Your task to perform on an android device: Search for Mexican restaurants on Maps Image 0: 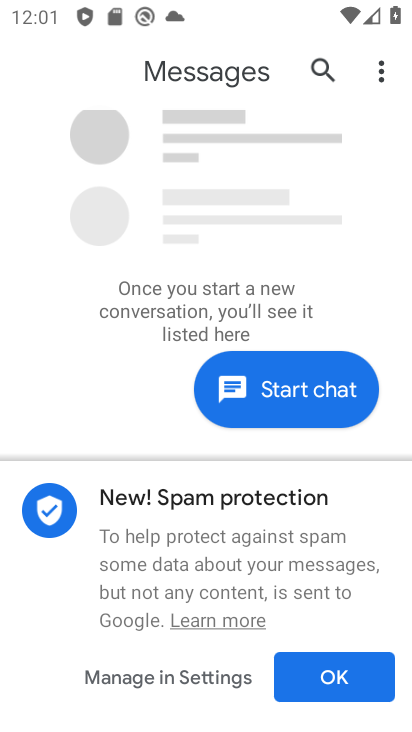
Step 0: press home button
Your task to perform on an android device: Search for Mexican restaurants on Maps Image 1: 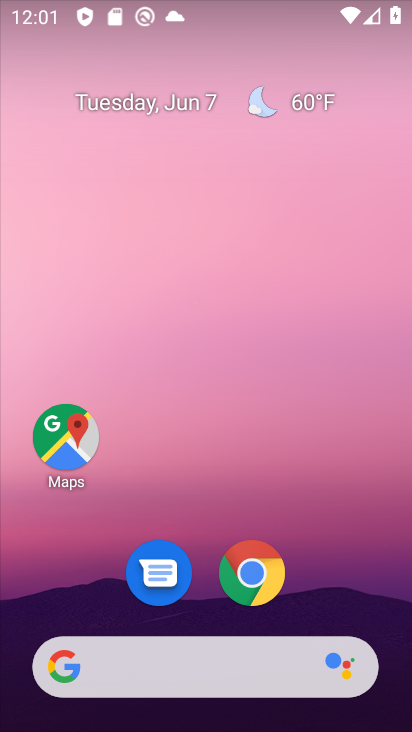
Step 1: click (63, 418)
Your task to perform on an android device: Search for Mexican restaurants on Maps Image 2: 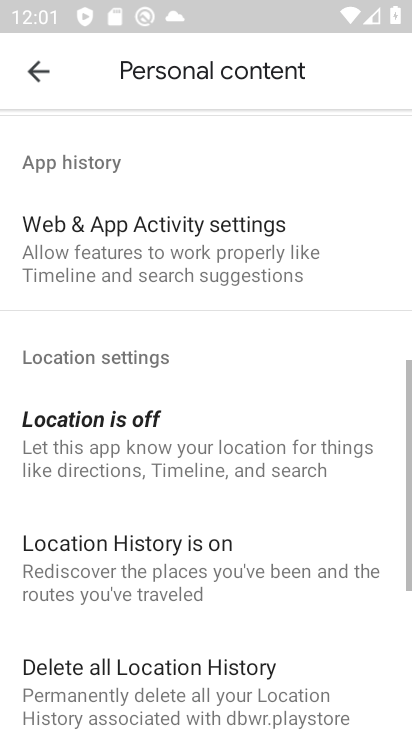
Step 2: click (44, 73)
Your task to perform on an android device: Search for Mexican restaurants on Maps Image 3: 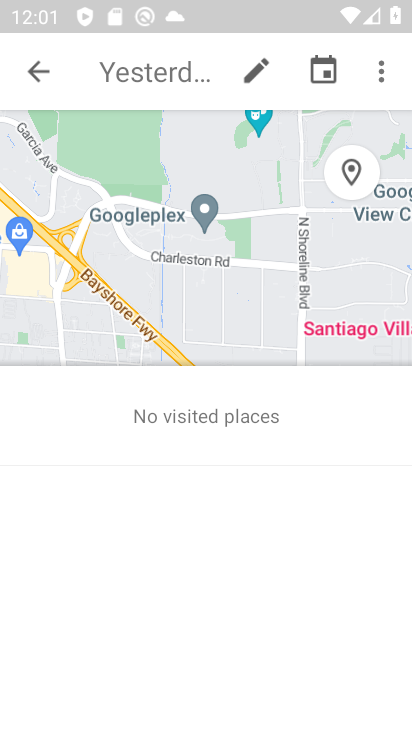
Step 3: click (44, 74)
Your task to perform on an android device: Search for Mexican restaurants on Maps Image 4: 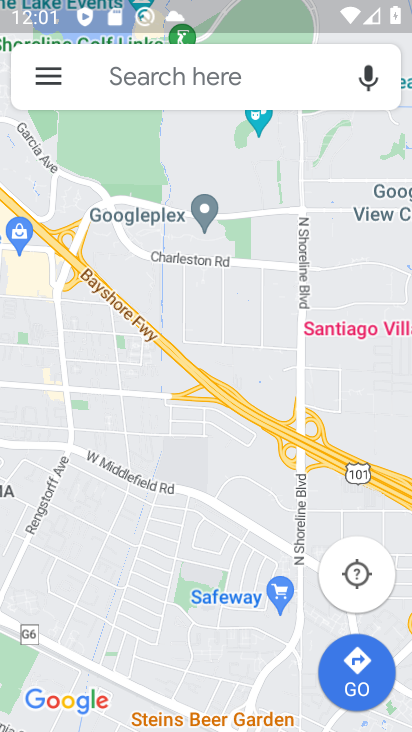
Step 4: click (182, 77)
Your task to perform on an android device: Search for Mexican restaurants on Maps Image 5: 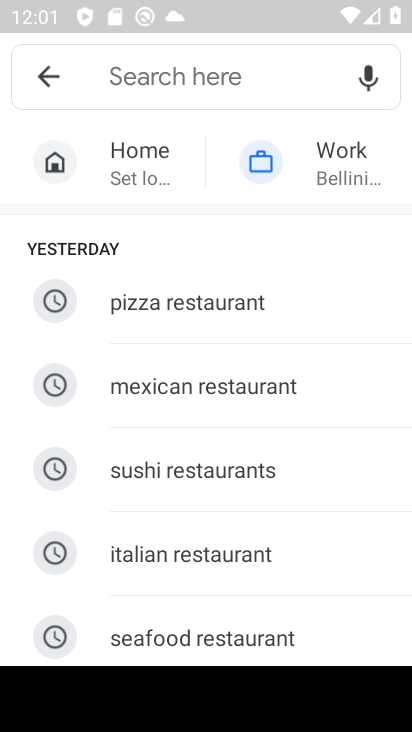
Step 5: type " Mexican restaurants "
Your task to perform on an android device: Search for Mexican restaurants on Maps Image 6: 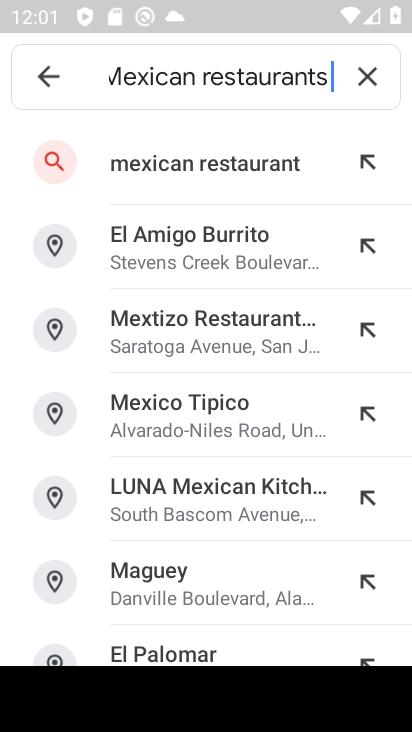
Step 6: click (284, 173)
Your task to perform on an android device: Search for Mexican restaurants on Maps Image 7: 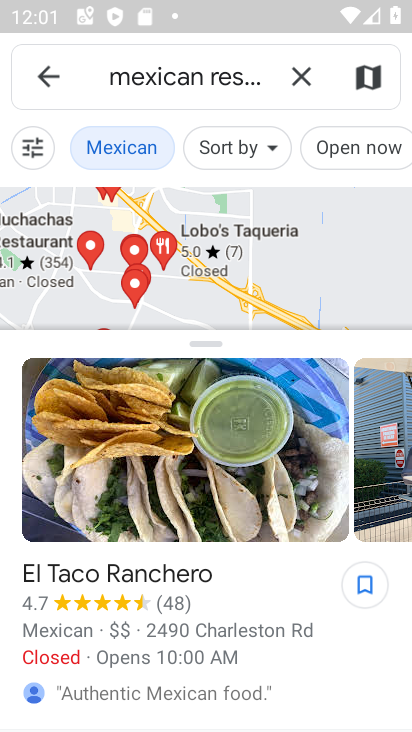
Step 7: task complete